Your task to perform on an android device: check google app version Image 0: 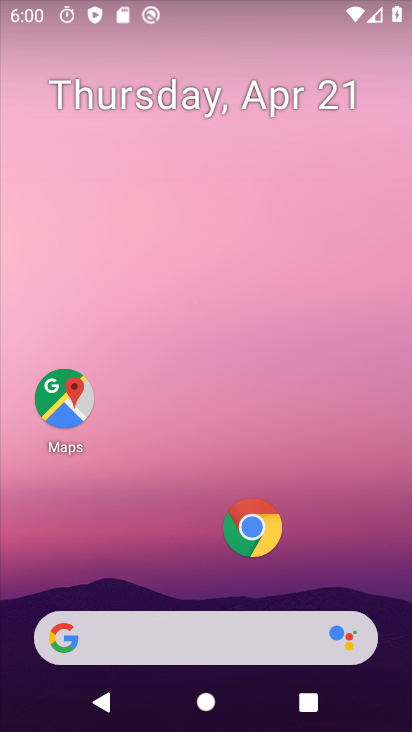
Step 0: drag from (160, 559) to (312, 19)
Your task to perform on an android device: check google app version Image 1: 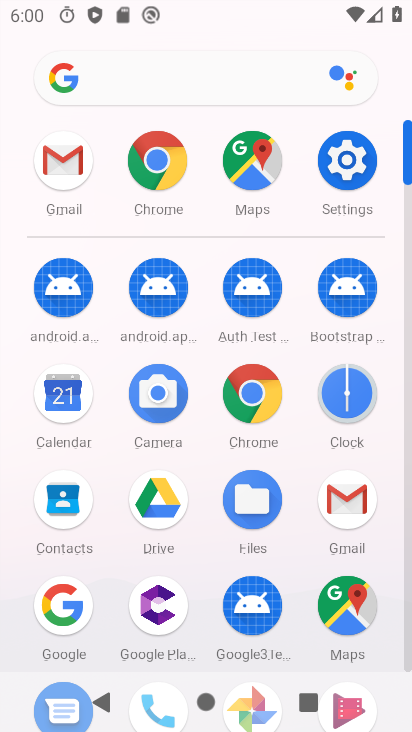
Step 1: click (54, 606)
Your task to perform on an android device: check google app version Image 2: 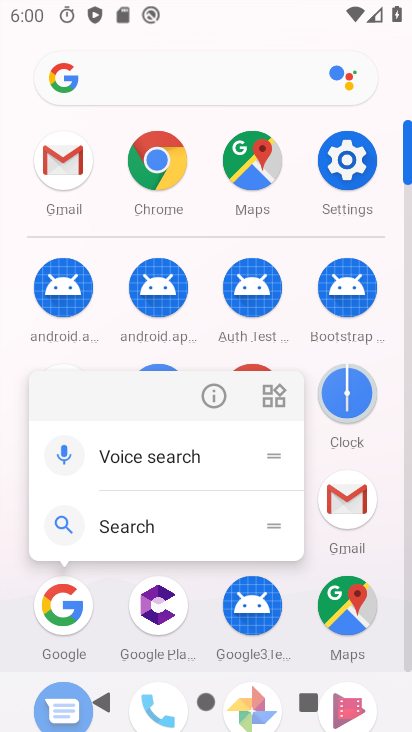
Step 2: click (221, 398)
Your task to perform on an android device: check google app version Image 3: 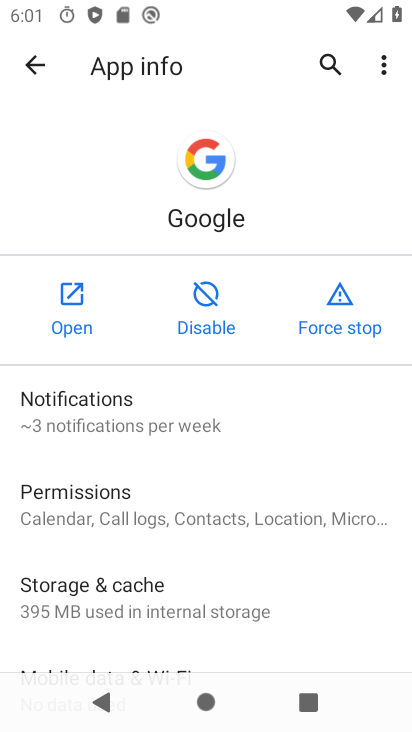
Step 3: drag from (224, 602) to (237, 106)
Your task to perform on an android device: check google app version Image 4: 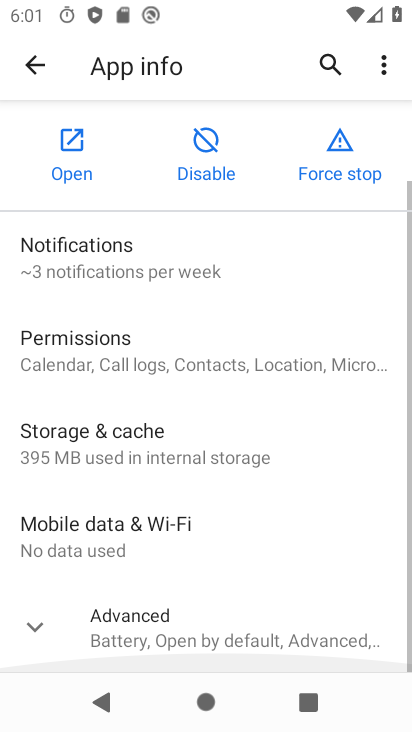
Step 4: drag from (139, 489) to (220, 4)
Your task to perform on an android device: check google app version Image 5: 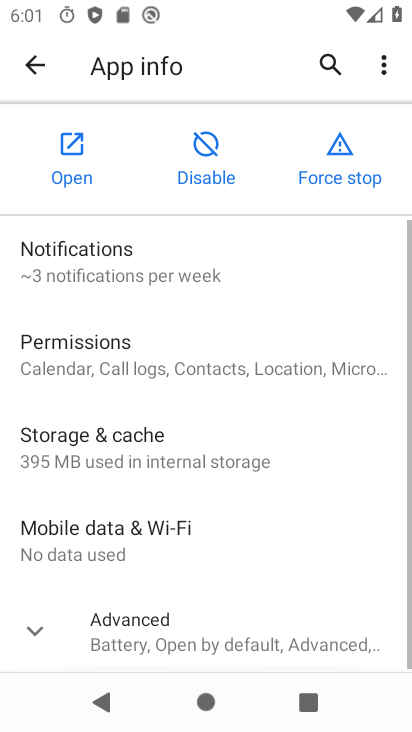
Step 5: drag from (151, 581) to (218, 93)
Your task to perform on an android device: check google app version Image 6: 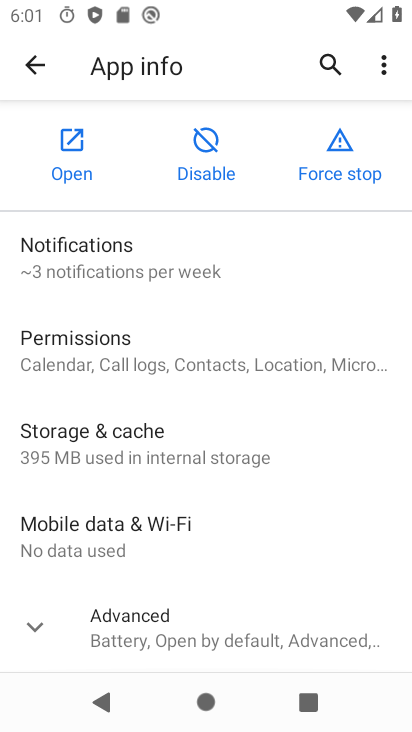
Step 6: click (124, 629)
Your task to perform on an android device: check google app version Image 7: 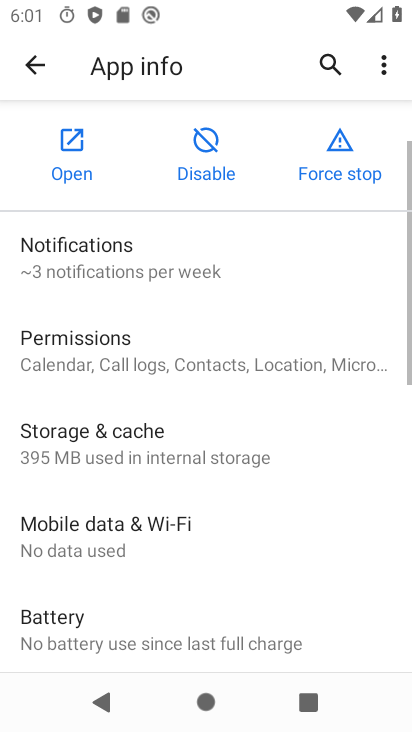
Step 7: task complete